Your task to perform on an android device: Empty the shopping cart on amazon.com. Search for "razer blade" on amazon.com, select the first entry, and add it to the cart. Image 0: 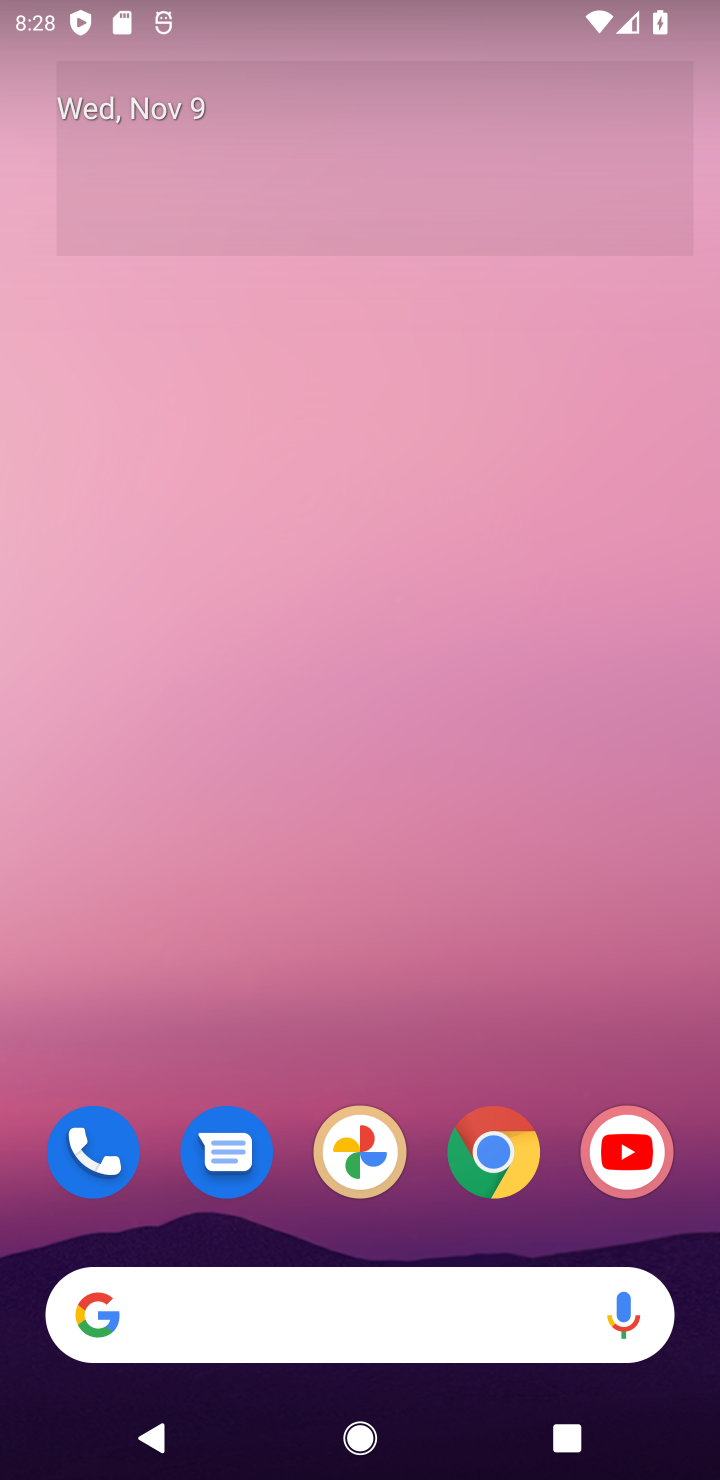
Step 0: click (493, 1147)
Your task to perform on an android device: Empty the shopping cart on amazon.com. Search for "razer blade" on amazon.com, select the first entry, and add it to the cart. Image 1: 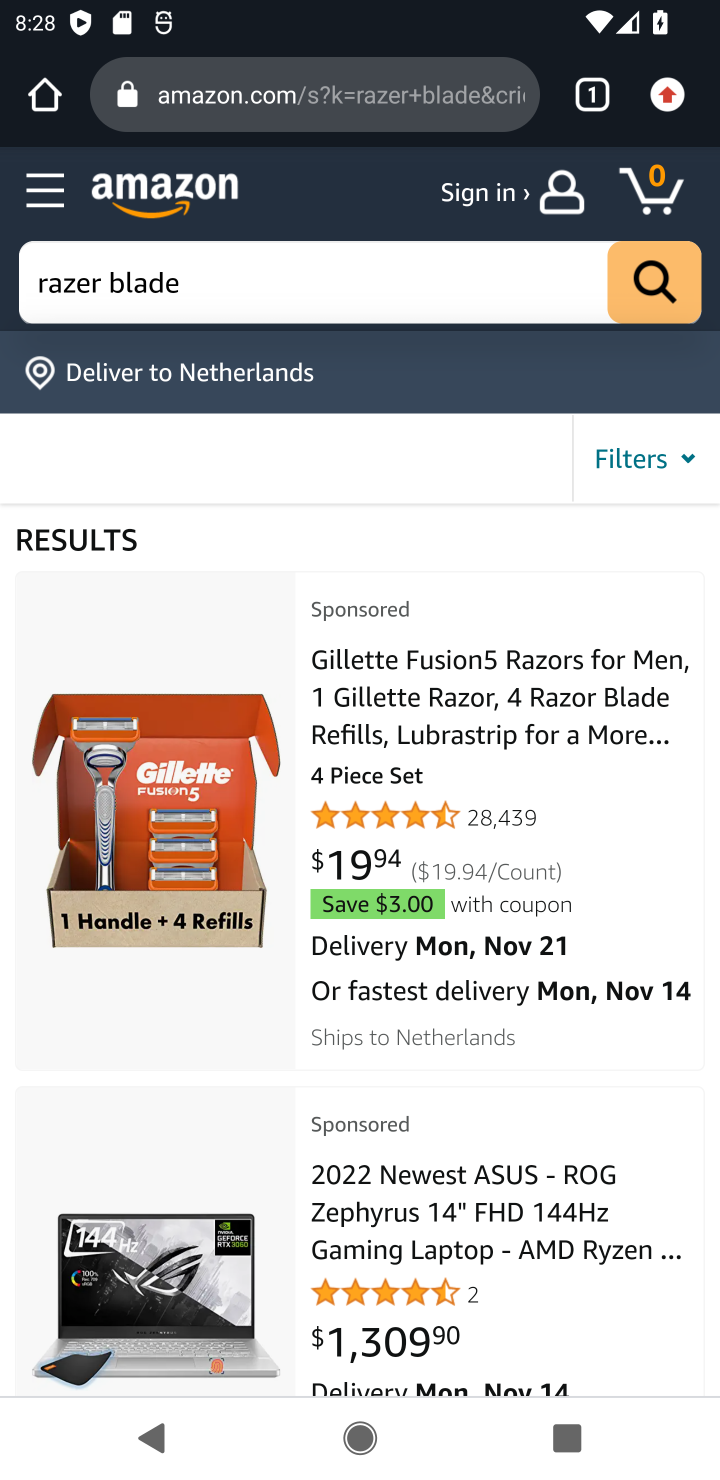
Step 1: task complete